Your task to perform on an android device: open device folders in google photos Image 0: 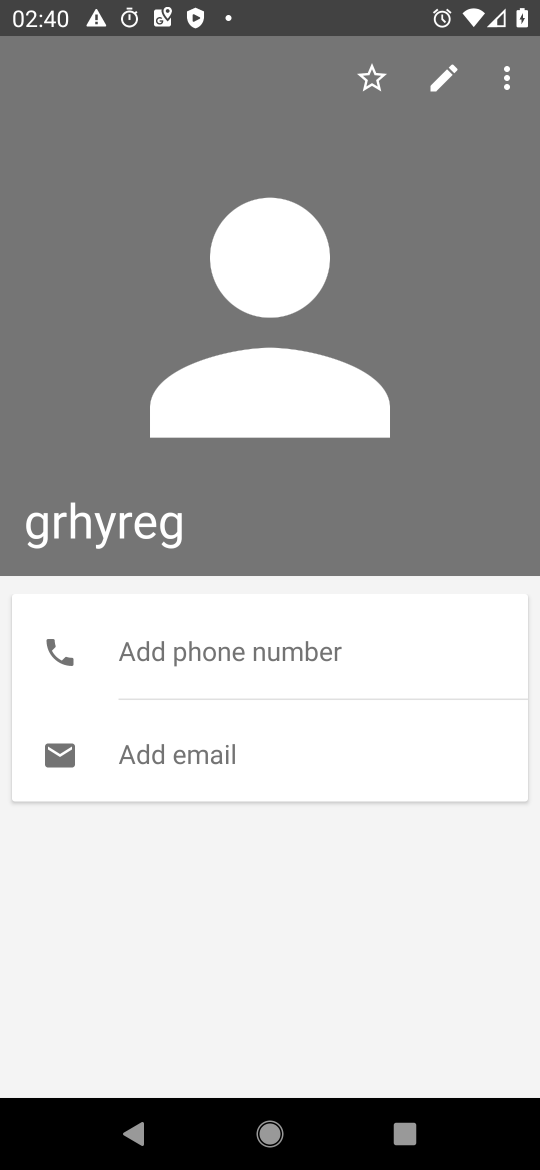
Step 0: press home button
Your task to perform on an android device: open device folders in google photos Image 1: 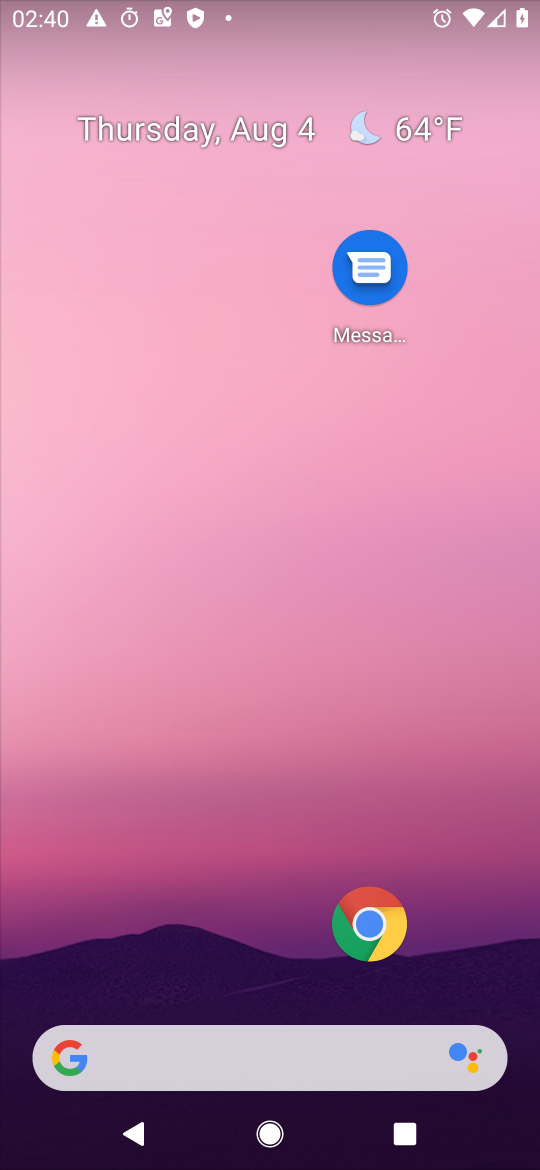
Step 1: drag from (42, 1147) to (78, 476)
Your task to perform on an android device: open device folders in google photos Image 2: 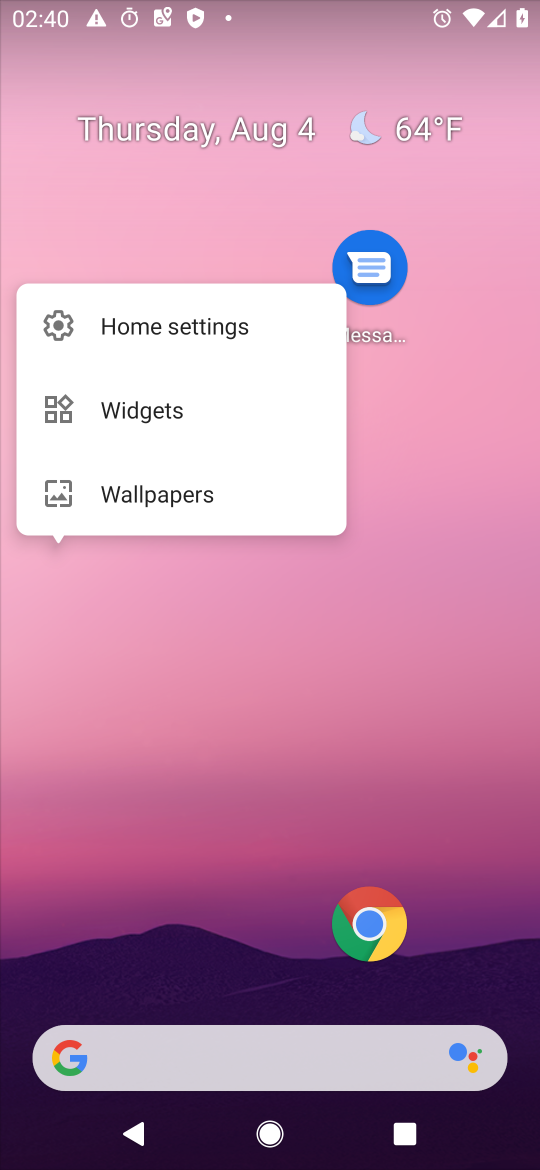
Step 2: drag from (105, 824) to (195, 223)
Your task to perform on an android device: open device folders in google photos Image 3: 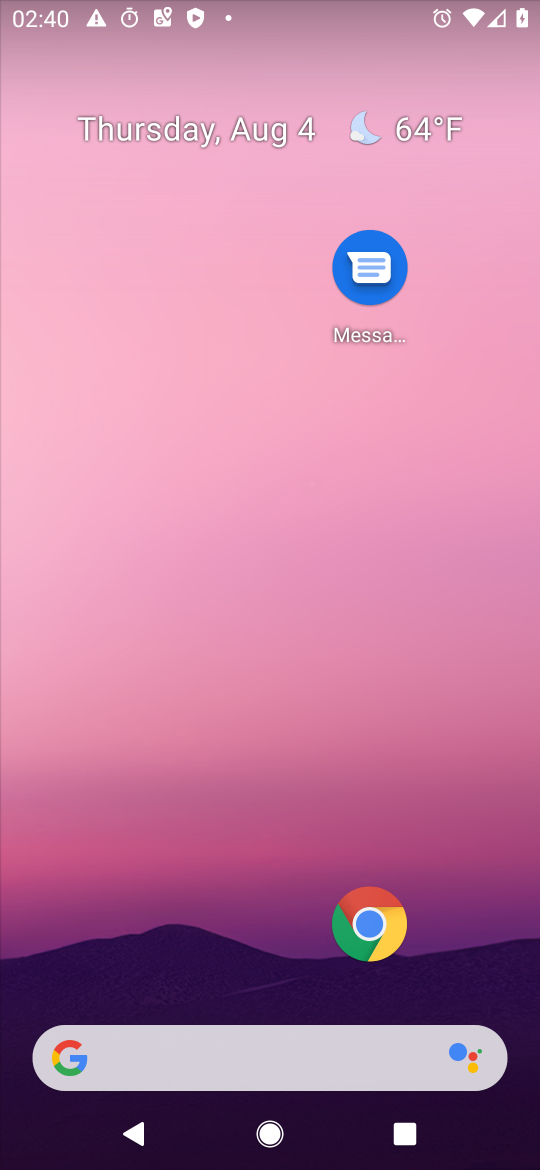
Step 3: drag from (256, 269) to (351, 16)
Your task to perform on an android device: open device folders in google photos Image 4: 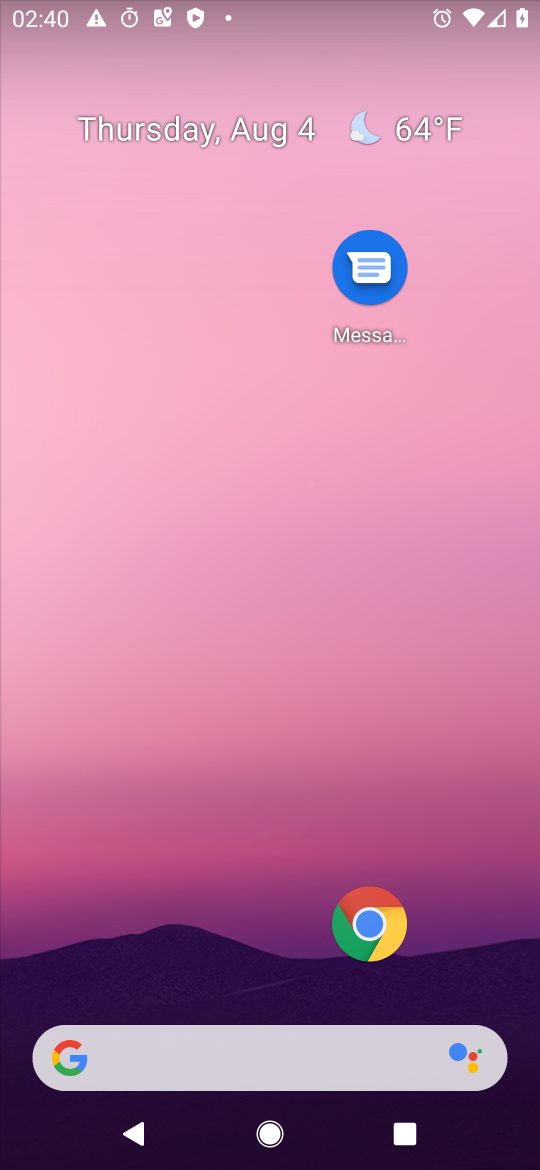
Step 4: drag from (82, 1127) to (177, 188)
Your task to perform on an android device: open device folders in google photos Image 5: 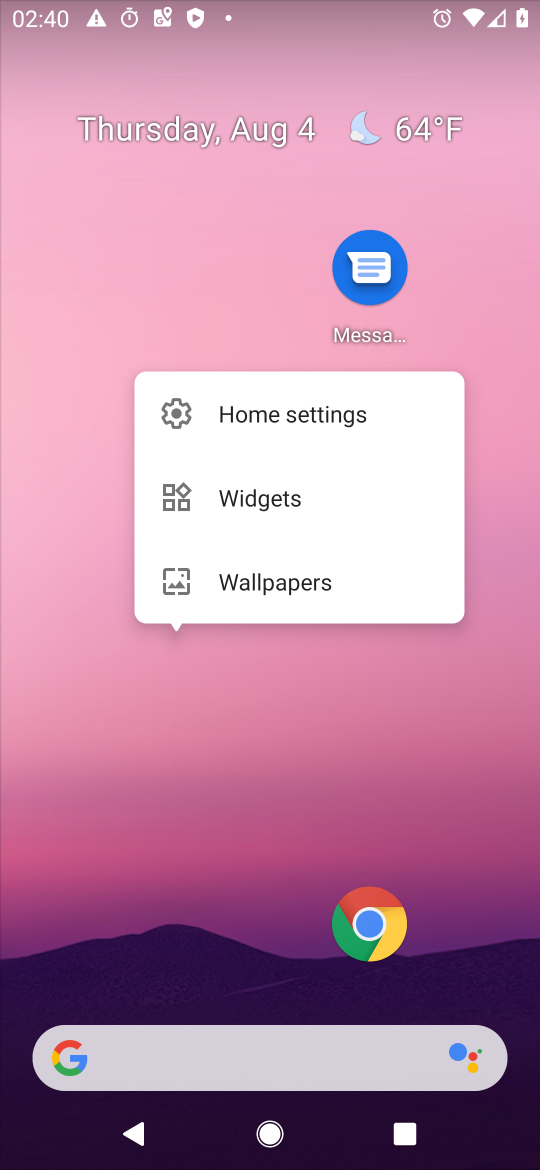
Step 5: drag from (97, 812) to (113, 30)
Your task to perform on an android device: open device folders in google photos Image 6: 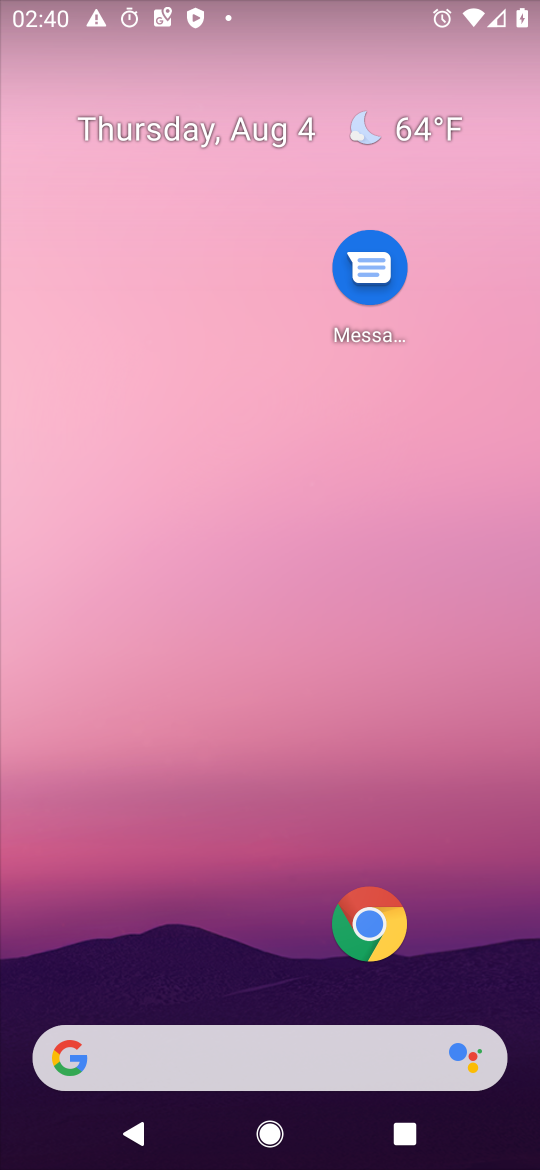
Step 6: drag from (128, 938) to (138, 169)
Your task to perform on an android device: open device folders in google photos Image 7: 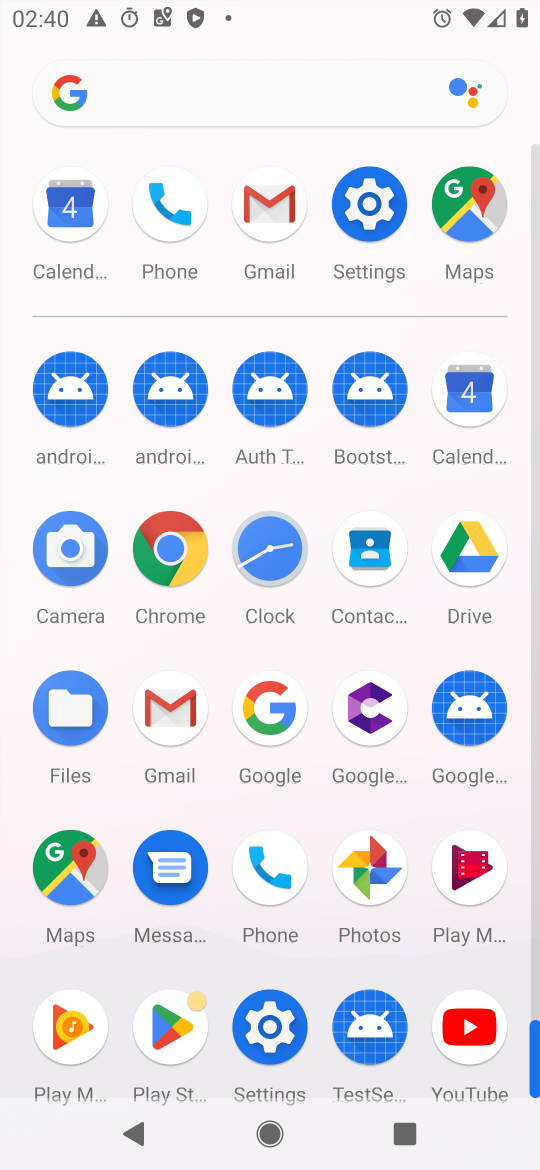
Step 7: click (382, 864)
Your task to perform on an android device: open device folders in google photos Image 8: 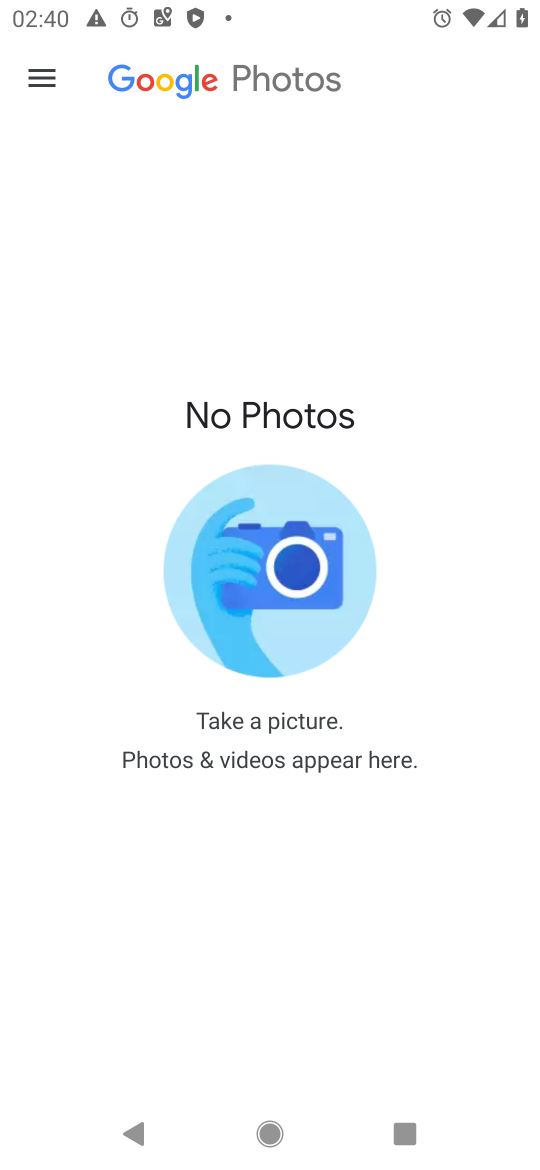
Step 8: task complete